Your task to perform on an android device: Go to internet settings Image 0: 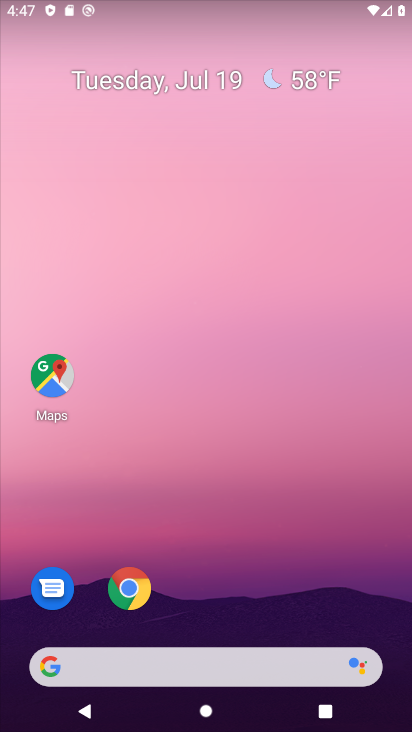
Step 0: drag from (276, 509) to (266, 0)
Your task to perform on an android device: Go to internet settings Image 1: 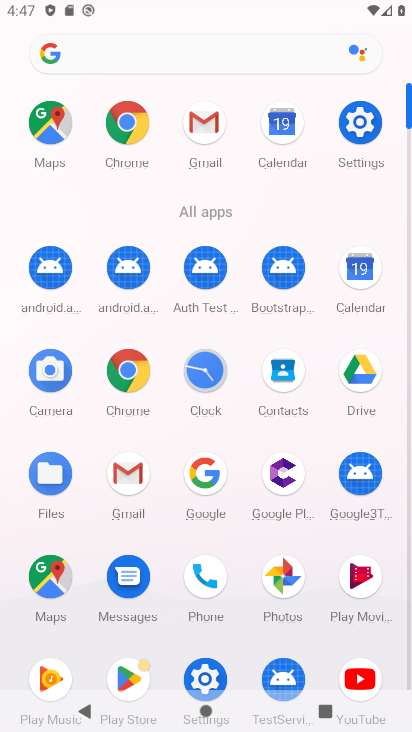
Step 1: click (361, 121)
Your task to perform on an android device: Go to internet settings Image 2: 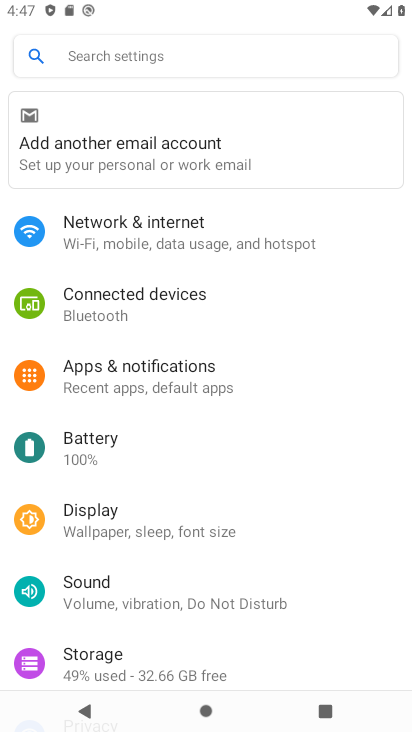
Step 2: click (182, 222)
Your task to perform on an android device: Go to internet settings Image 3: 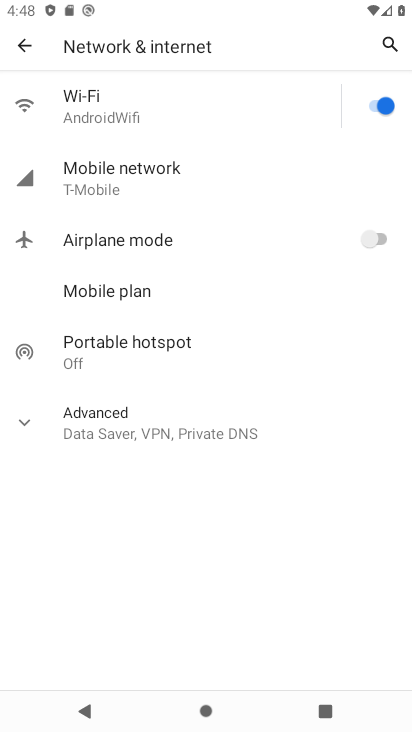
Step 3: click (68, 427)
Your task to perform on an android device: Go to internet settings Image 4: 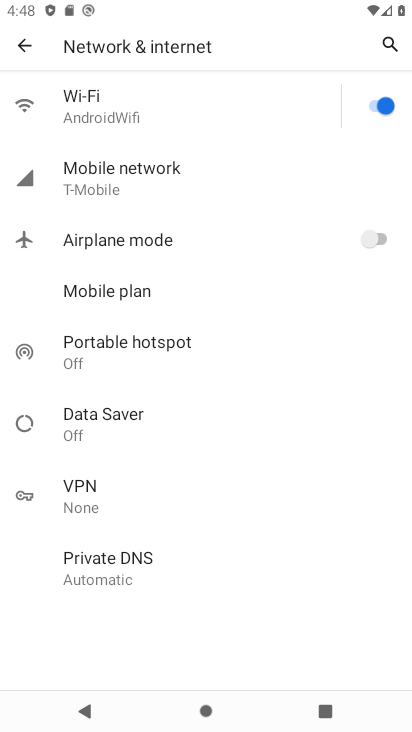
Step 4: task complete